Your task to perform on an android device: Open Google Chrome and click the shortcut for Amazon.com Image 0: 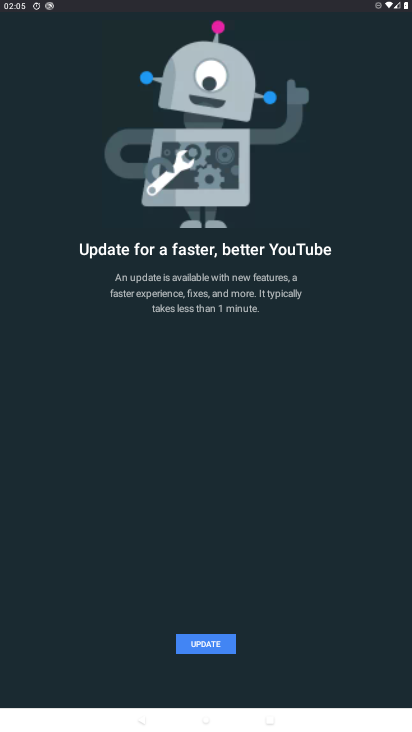
Step 0: press home button
Your task to perform on an android device: Open Google Chrome and click the shortcut for Amazon.com Image 1: 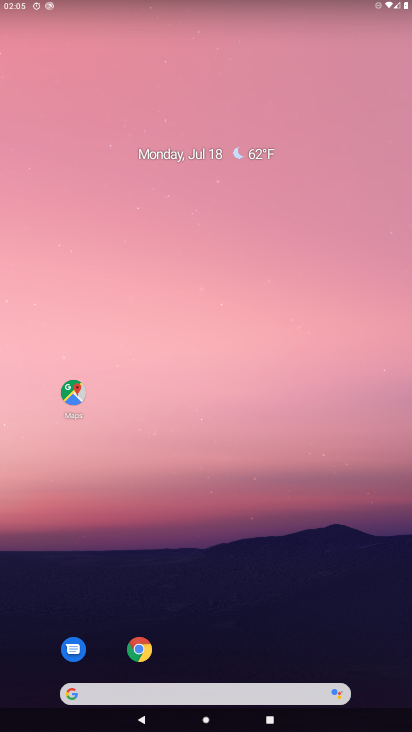
Step 1: click (121, 654)
Your task to perform on an android device: Open Google Chrome and click the shortcut for Amazon.com Image 2: 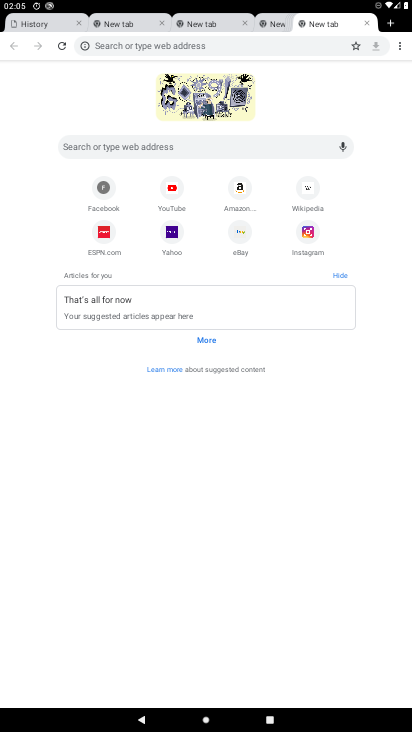
Step 2: click (240, 187)
Your task to perform on an android device: Open Google Chrome and click the shortcut for Amazon.com Image 3: 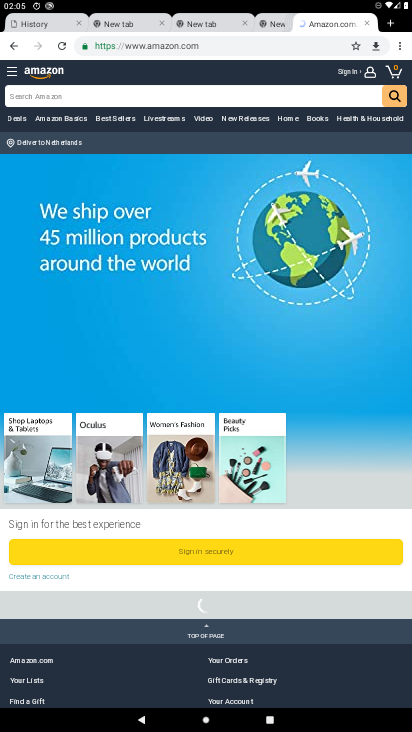
Step 3: task complete